Your task to perform on an android device: change your default location settings in chrome Image 0: 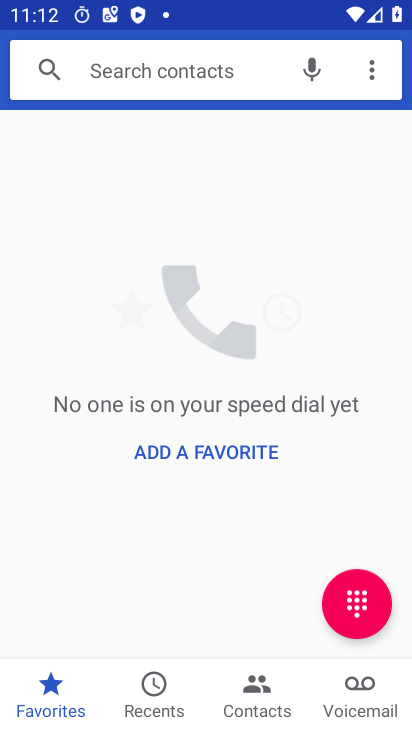
Step 0: press back button
Your task to perform on an android device: change your default location settings in chrome Image 1: 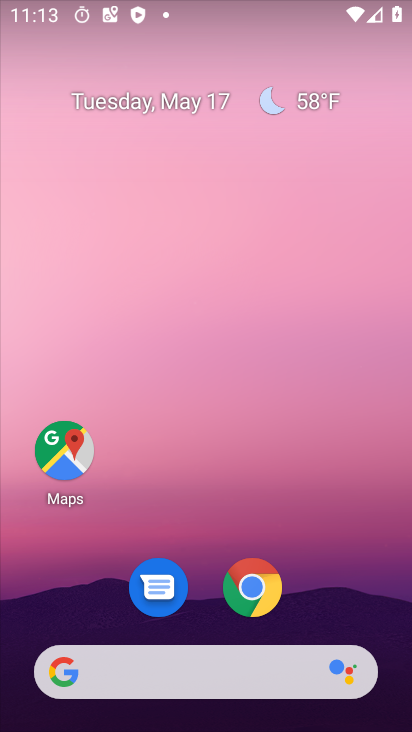
Step 1: click (251, 587)
Your task to perform on an android device: change your default location settings in chrome Image 2: 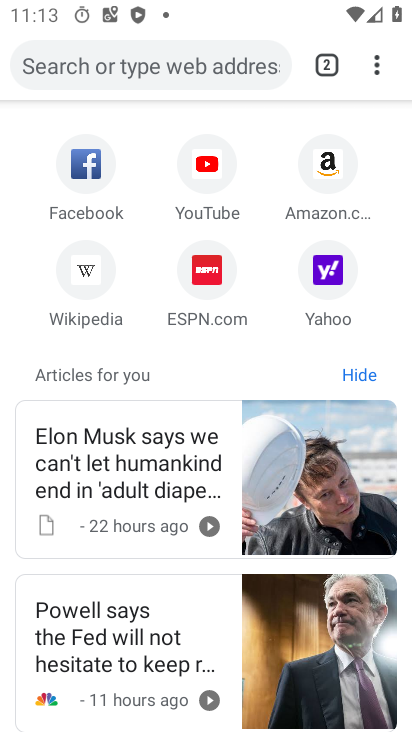
Step 2: click (378, 63)
Your task to perform on an android device: change your default location settings in chrome Image 3: 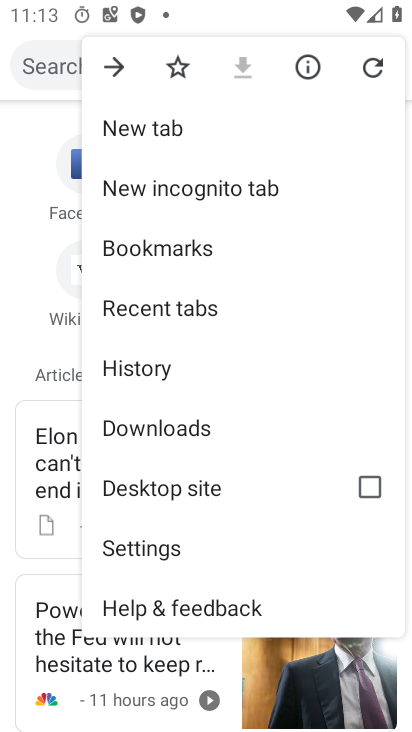
Step 3: click (143, 545)
Your task to perform on an android device: change your default location settings in chrome Image 4: 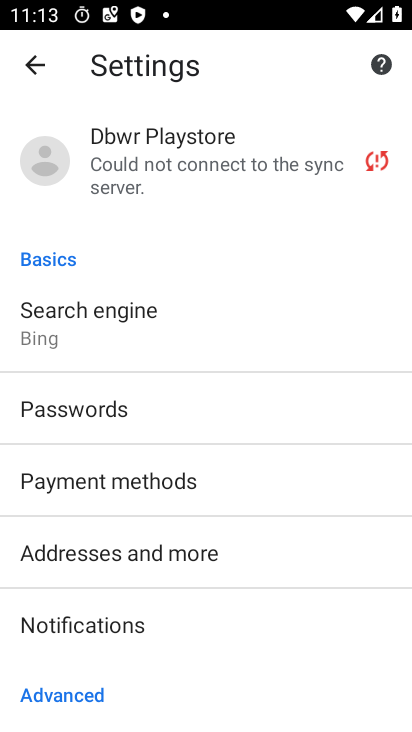
Step 4: drag from (121, 555) to (182, 455)
Your task to perform on an android device: change your default location settings in chrome Image 5: 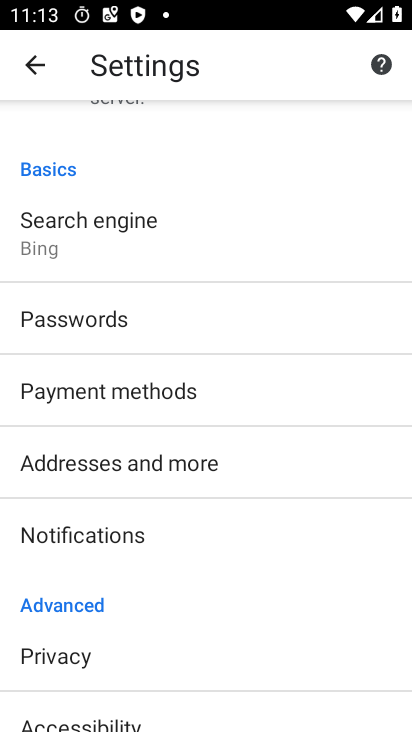
Step 5: drag from (129, 575) to (192, 456)
Your task to perform on an android device: change your default location settings in chrome Image 6: 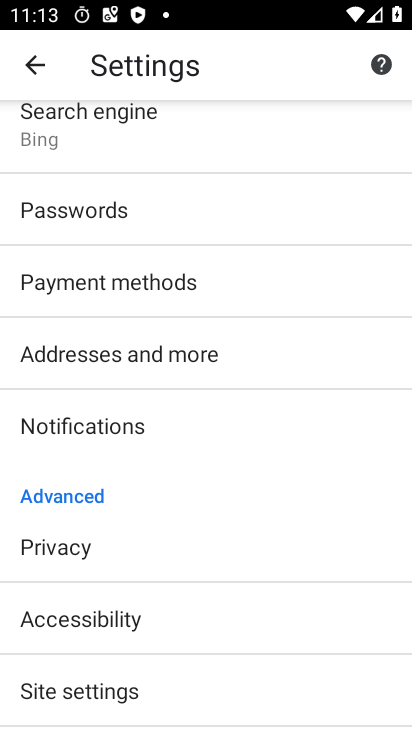
Step 6: drag from (141, 549) to (235, 406)
Your task to perform on an android device: change your default location settings in chrome Image 7: 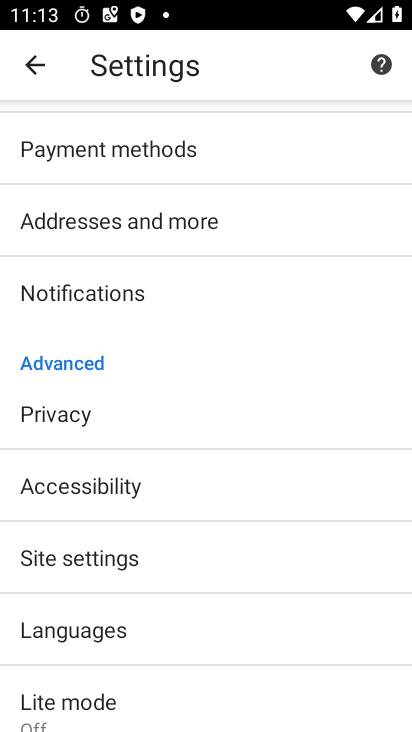
Step 7: click (81, 555)
Your task to perform on an android device: change your default location settings in chrome Image 8: 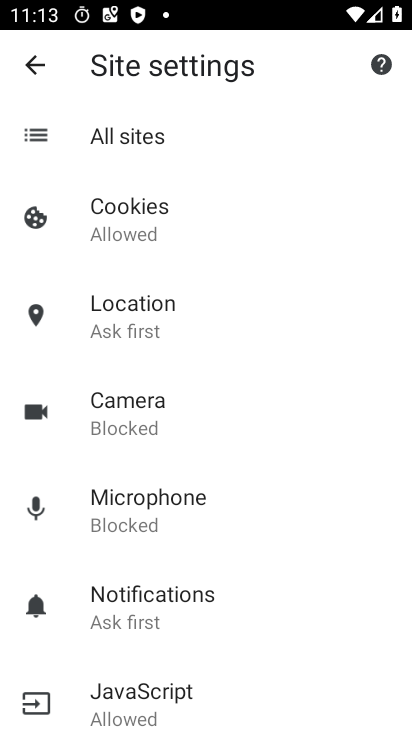
Step 8: click (128, 314)
Your task to perform on an android device: change your default location settings in chrome Image 9: 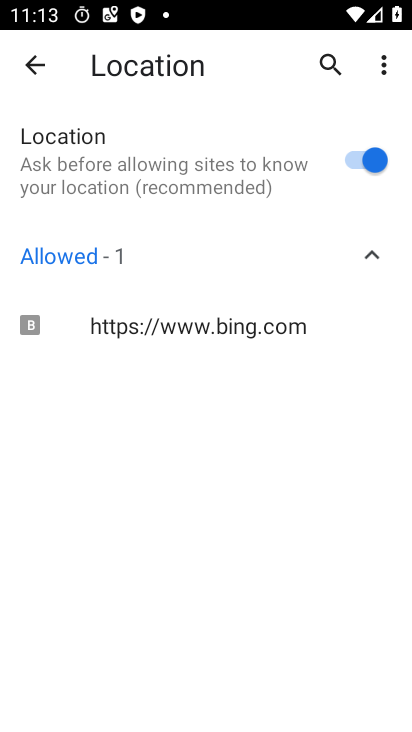
Step 9: click (373, 154)
Your task to perform on an android device: change your default location settings in chrome Image 10: 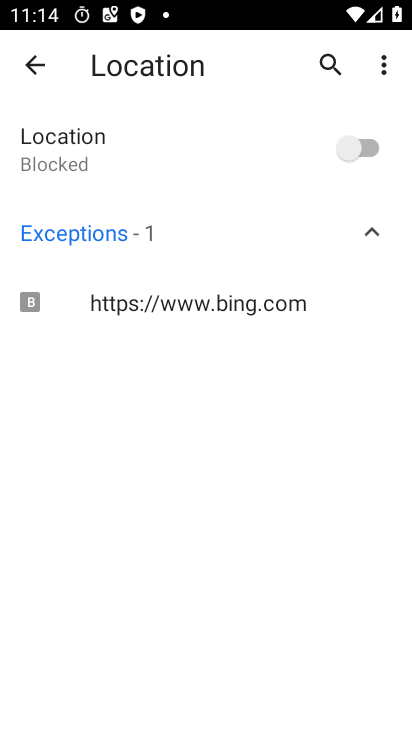
Step 10: task complete